Your task to perform on an android device: Open location settings Image 0: 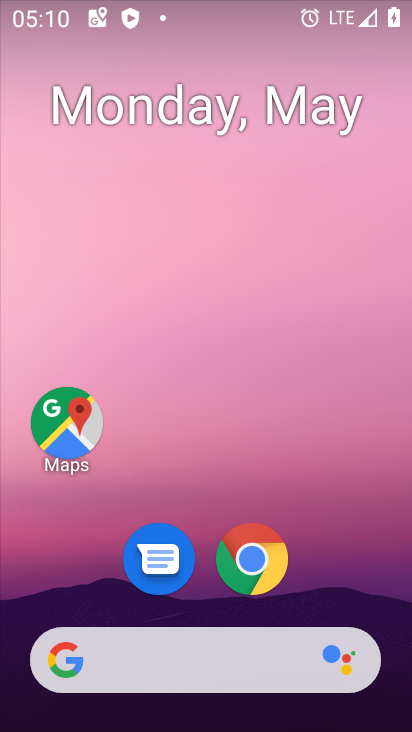
Step 0: drag from (327, 646) to (361, 179)
Your task to perform on an android device: Open location settings Image 1: 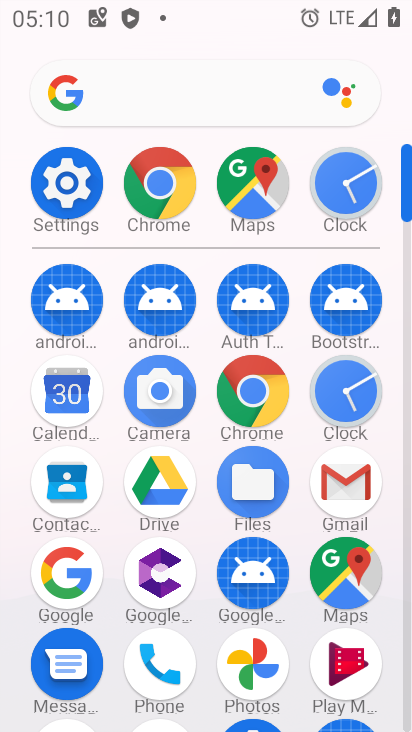
Step 1: click (45, 176)
Your task to perform on an android device: Open location settings Image 2: 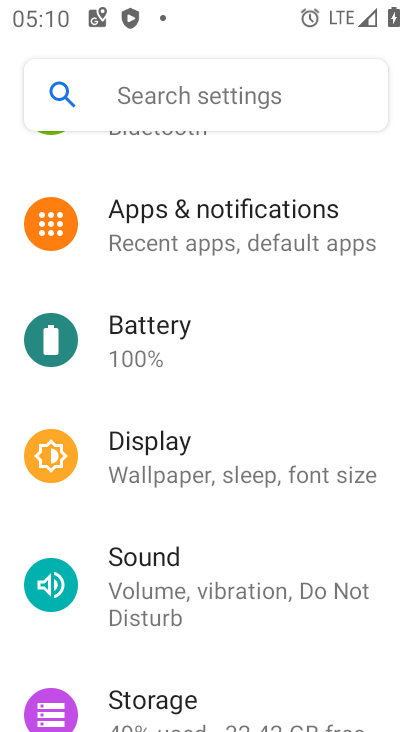
Step 2: drag from (242, 426) to (186, 729)
Your task to perform on an android device: Open location settings Image 3: 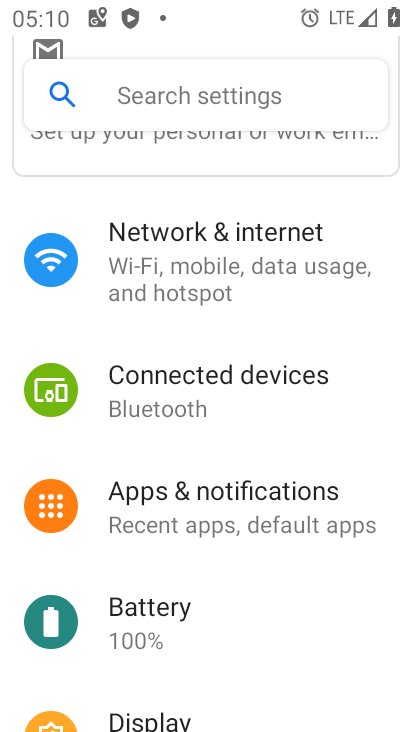
Step 3: drag from (212, 540) to (265, 44)
Your task to perform on an android device: Open location settings Image 4: 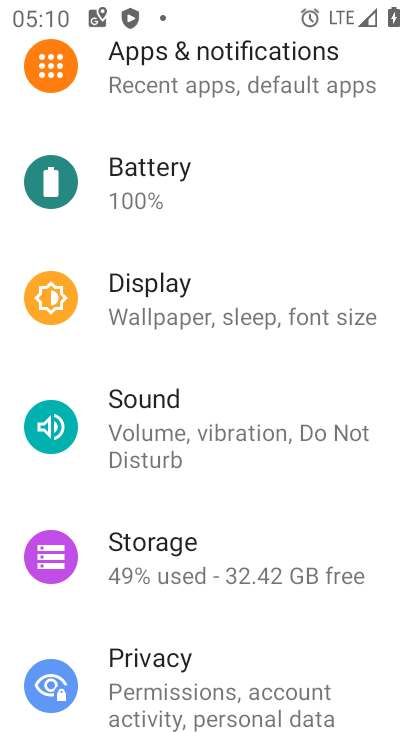
Step 4: drag from (273, 668) to (316, 239)
Your task to perform on an android device: Open location settings Image 5: 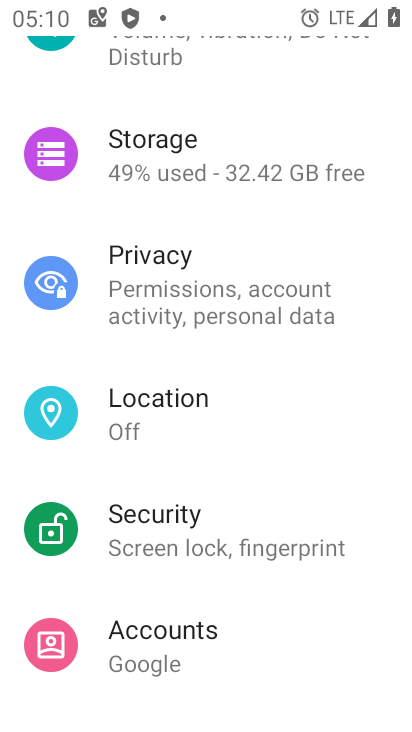
Step 5: click (248, 416)
Your task to perform on an android device: Open location settings Image 6: 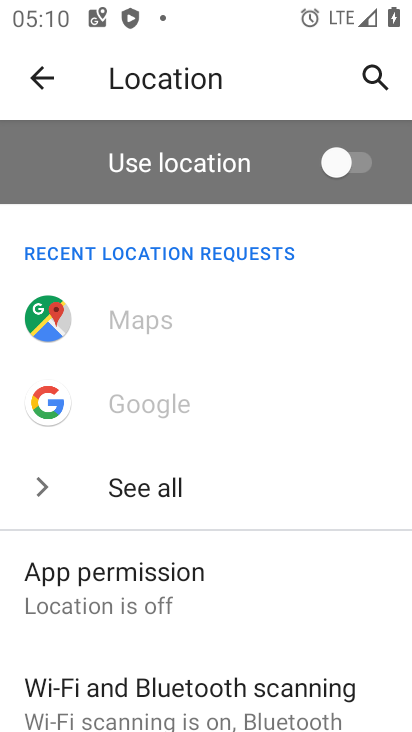
Step 6: task complete